Your task to perform on an android device: delete a single message in the gmail app Image 0: 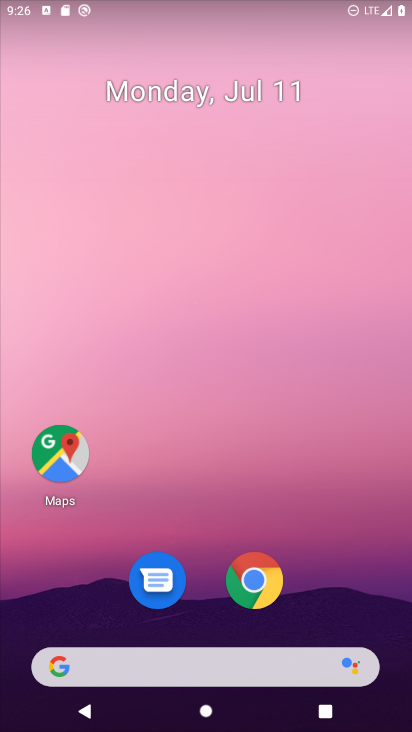
Step 0: drag from (330, 566) to (291, 37)
Your task to perform on an android device: delete a single message in the gmail app Image 1: 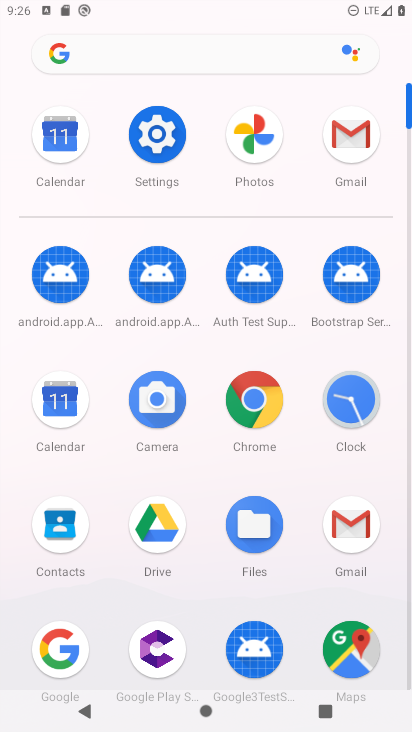
Step 1: click (358, 145)
Your task to perform on an android device: delete a single message in the gmail app Image 2: 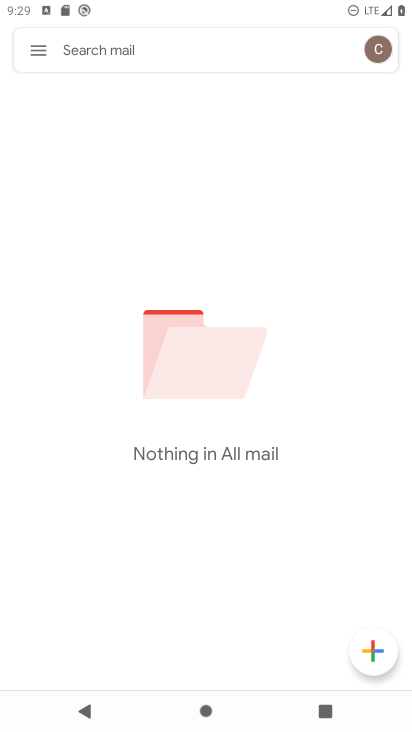
Step 2: task complete